Your task to perform on an android device: Open battery settings Image 0: 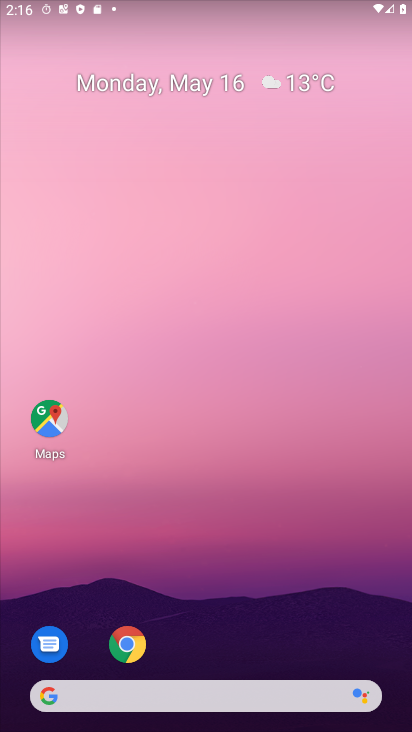
Step 0: drag from (230, 612) to (181, 141)
Your task to perform on an android device: Open battery settings Image 1: 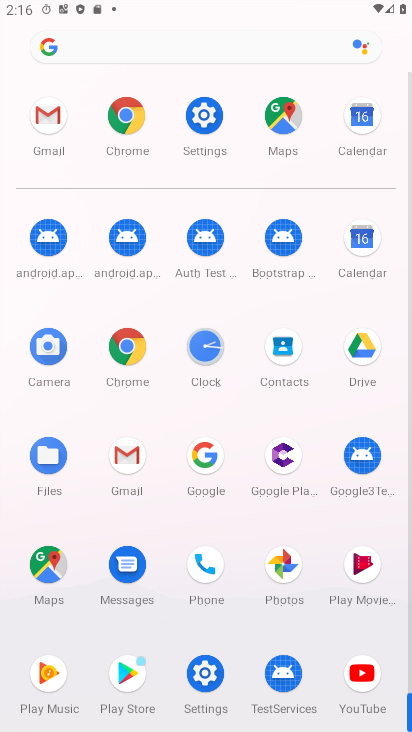
Step 1: click (213, 155)
Your task to perform on an android device: Open battery settings Image 2: 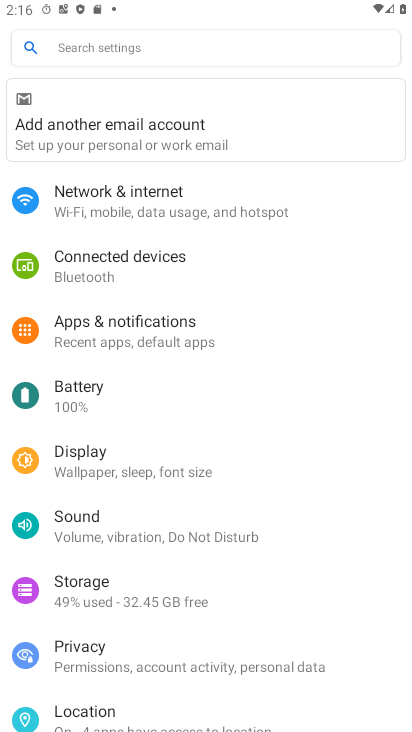
Step 2: drag from (209, 359) to (195, 232)
Your task to perform on an android device: Open battery settings Image 3: 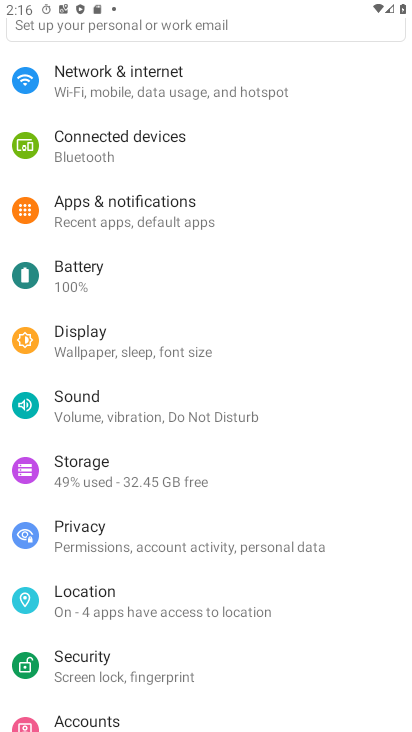
Step 3: click (174, 285)
Your task to perform on an android device: Open battery settings Image 4: 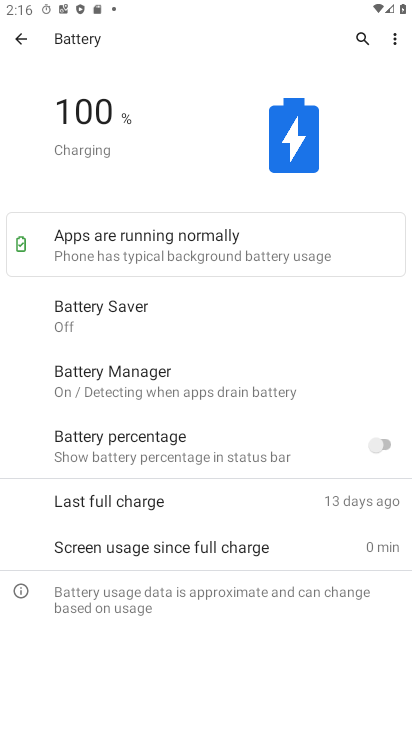
Step 4: task complete